Your task to perform on an android device: Do I have any events this weekend? Image 0: 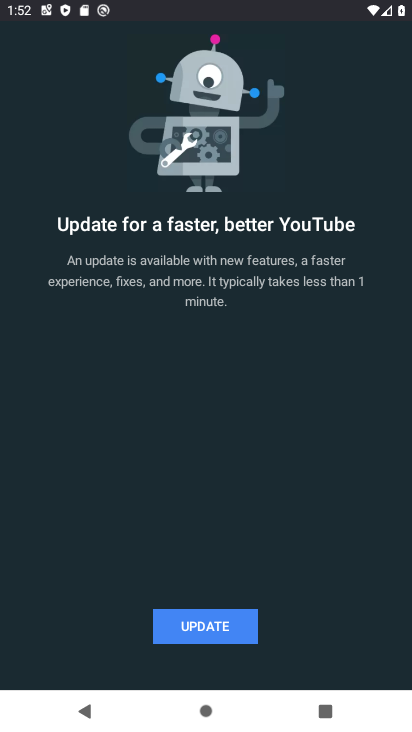
Step 0: press home button
Your task to perform on an android device: Do I have any events this weekend? Image 1: 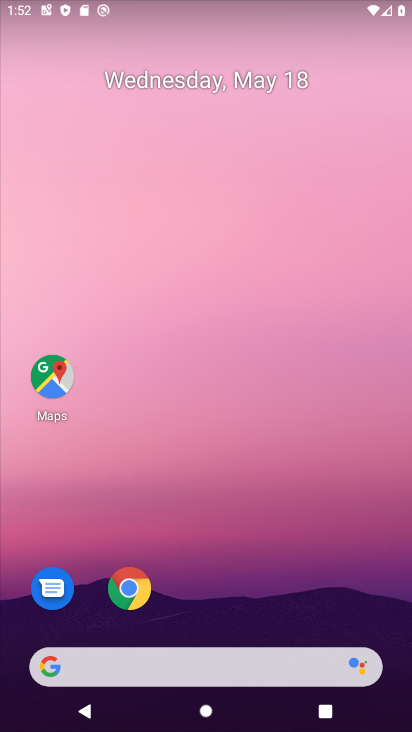
Step 1: drag from (330, 582) to (314, 72)
Your task to perform on an android device: Do I have any events this weekend? Image 2: 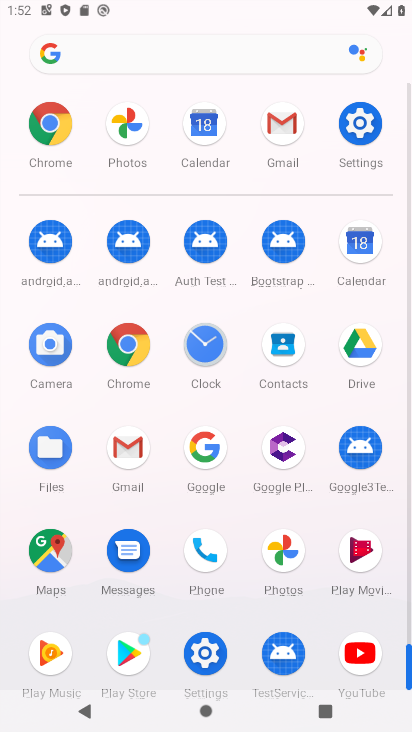
Step 2: click (353, 263)
Your task to perform on an android device: Do I have any events this weekend? Image 3: 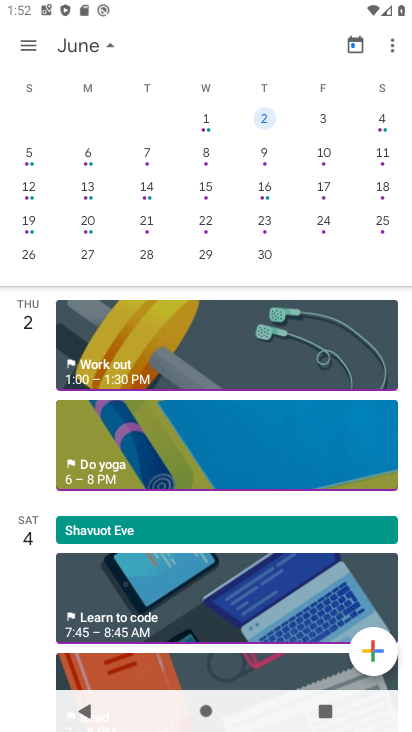
Step 3: drag from (33, 110) to (403, 285)
Your task to perform on an android device: Do I have any events this weekend? Image 4: 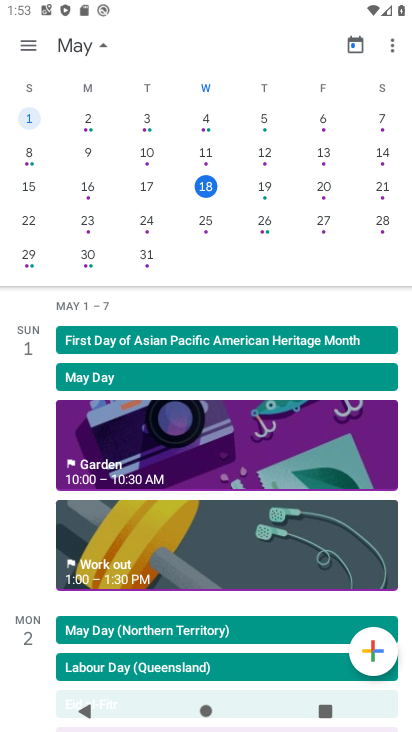
Step 4: click (377, 191)
Your task to perform on an android device: Do I have any events this weekend? Image 5: 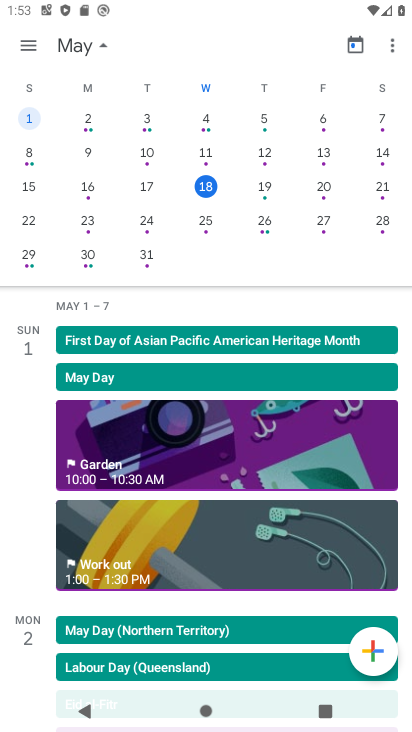
Step 5: click (387, 185)
Your task to perform on an android device: Do I have any events this weekend? Image 6: 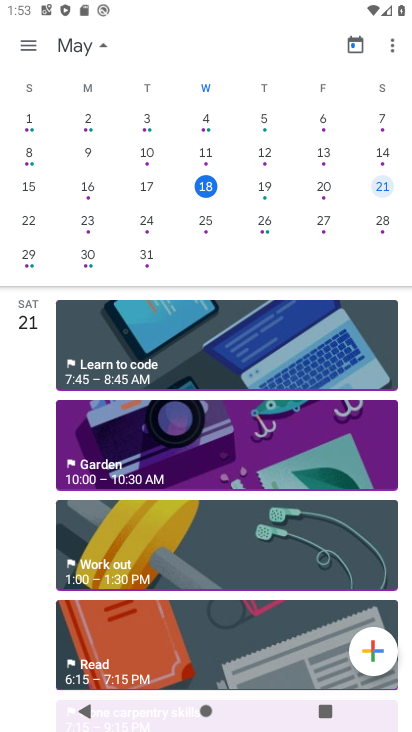
Step 6: click (195, 312)
Your task to perform on an android device: Do I have any events this weekend? Image 7: 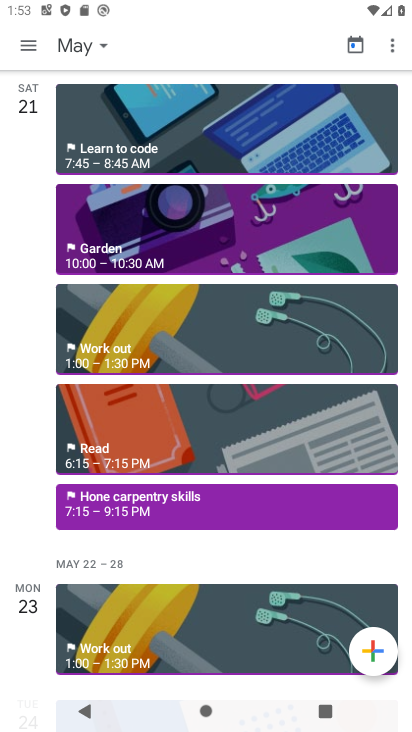
Step 7: task complete